Your task to perform on an android device: move a message to another label in the gmail app Image 0: 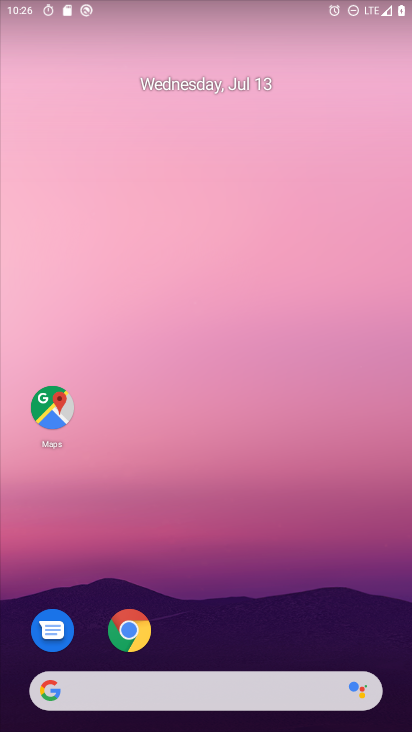
Step 0: drag from (378, 649) to (228, 25)
Your task to perform on an android device: move a message to another label in the gmail app Image 1: 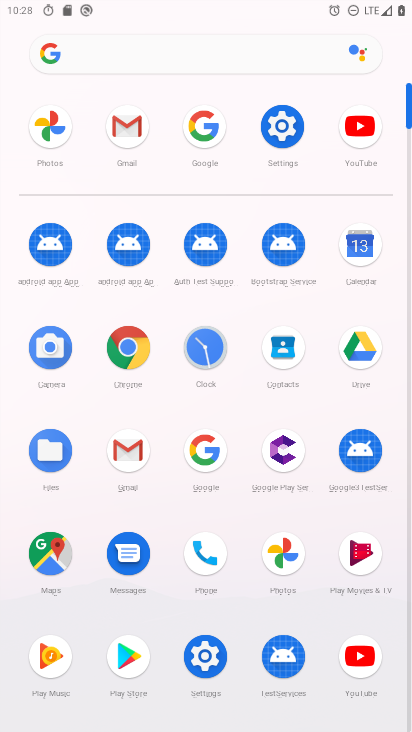
Step 1: click (133, 459)
Your task to perform on an android device: move a message to another label in the gmail app Image 2: 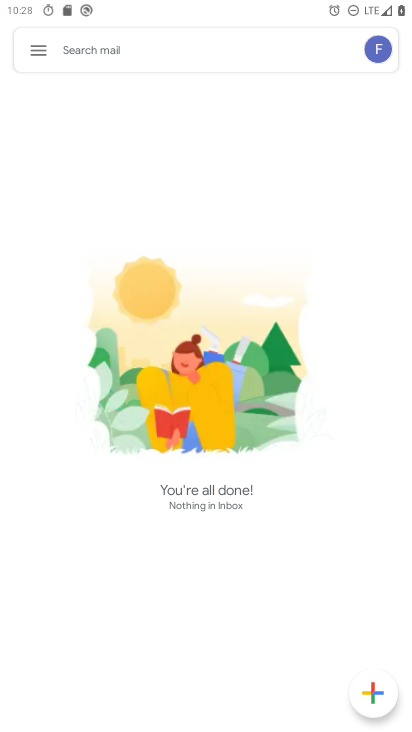
Step 2: task complete